Your task to perform on an android device: Search for Italian restaurants on Maps Image 0: 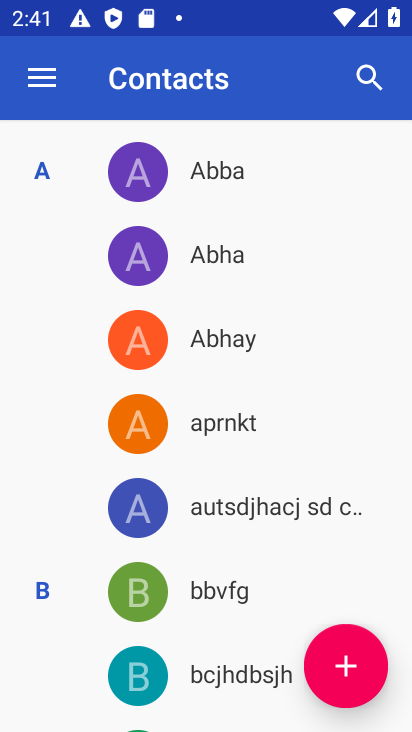
Step 0: press home button
Your task to perform on an android device: Search for Italian restaurants on Maps Image 1: 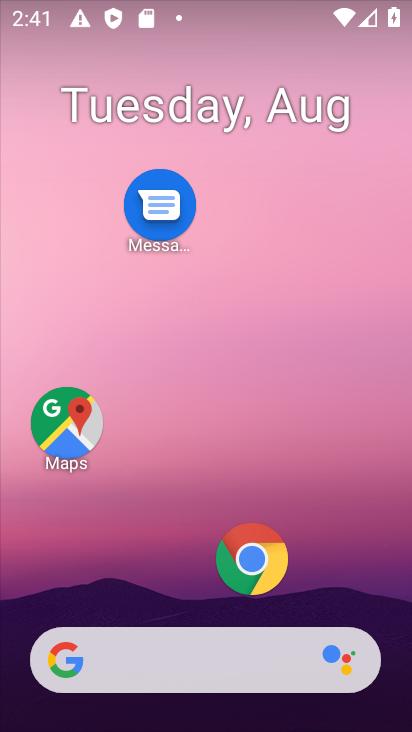
Step 1: click (50, 420)
Your task to perform on an android device: Search for Italian restaurants on Maps Image 2: 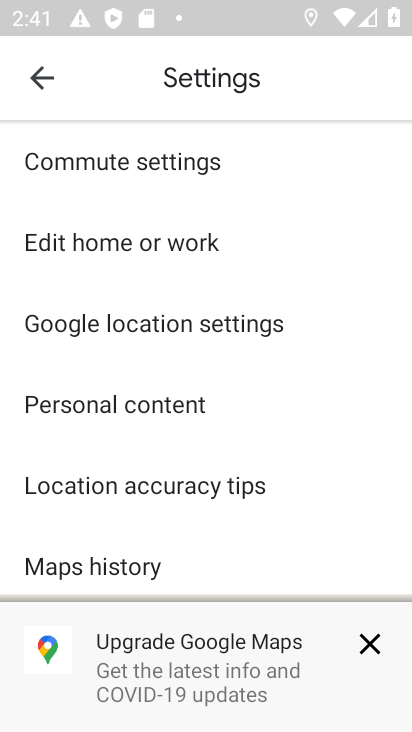
Step 2: click (38, 80)
Your task to perform on an android device: Search for Italian restaurants on Maps Image 3: 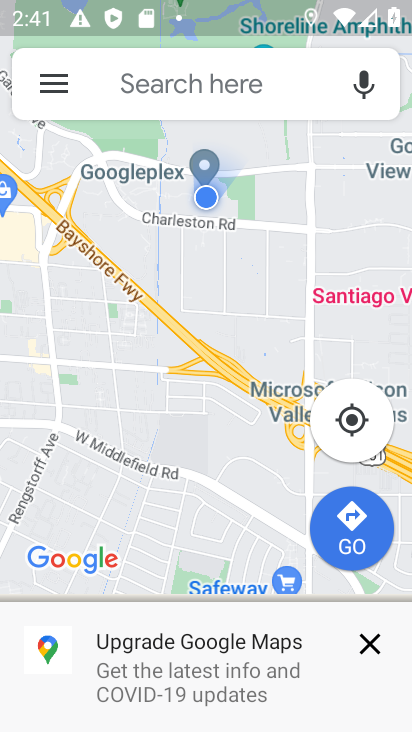
Step 3: click (208, 87)
Your task to perform on an android device: Search for Italian restaurants on Maps Image 4: 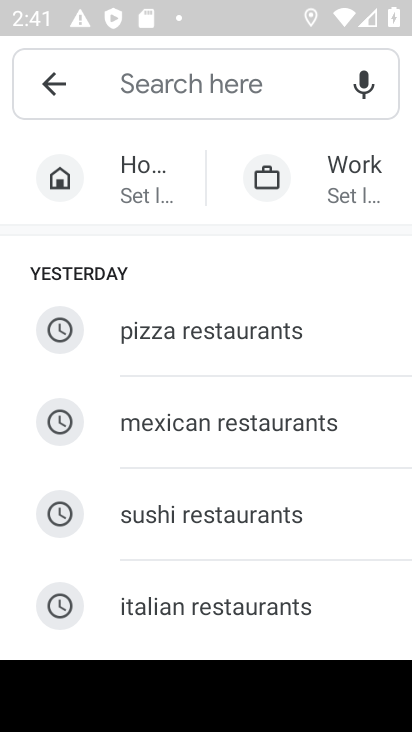
Step 4: click (211, 599)
Your task to perform on an android device: Search for Italian restaurants on Maps Image 5: 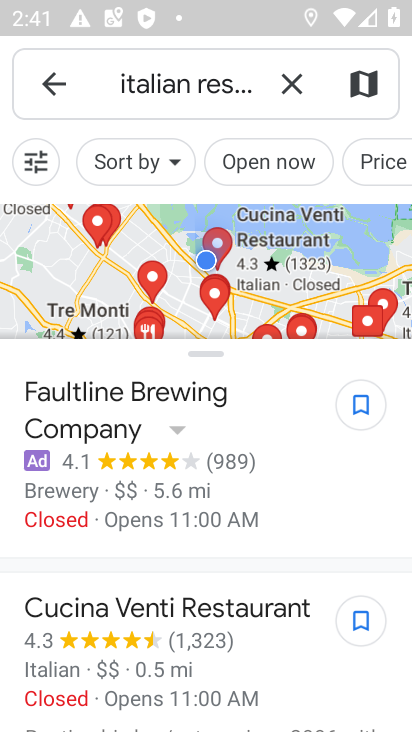
Step 5: task complete